Your task to perform on an android device: manage bookmarks in the chrome app Image 0: 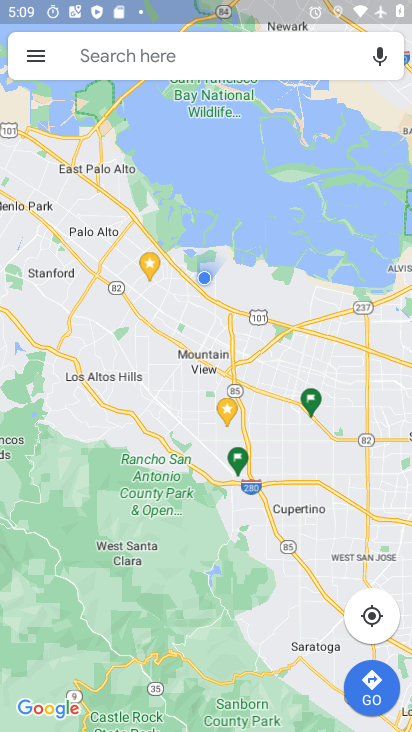
Step 0: press back button
Your task to perform on an android device: manage bookmarks in the chrome app Image 1: 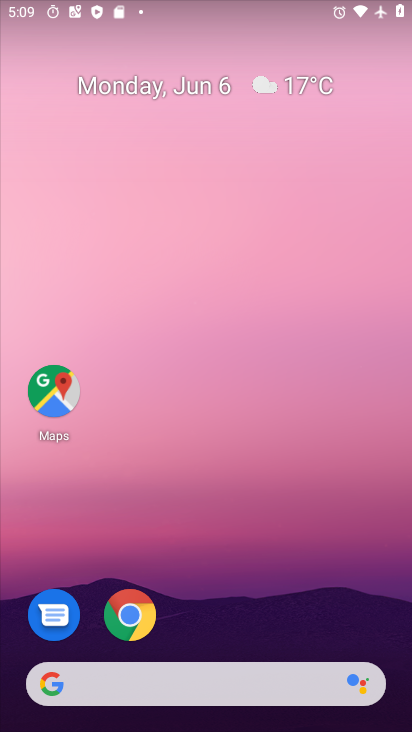
Step 1: drag from (213, 570) to (216, 7)
Your task to perform on an android device: manage bookmarks in the chrome app Image 2: 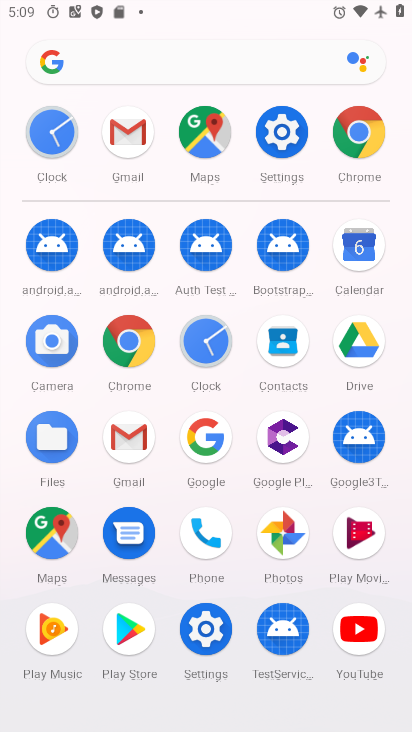
Step 2: click (123, 337)
Your task to perform on an android device: manage bookmarks in the chrome app Image 3: 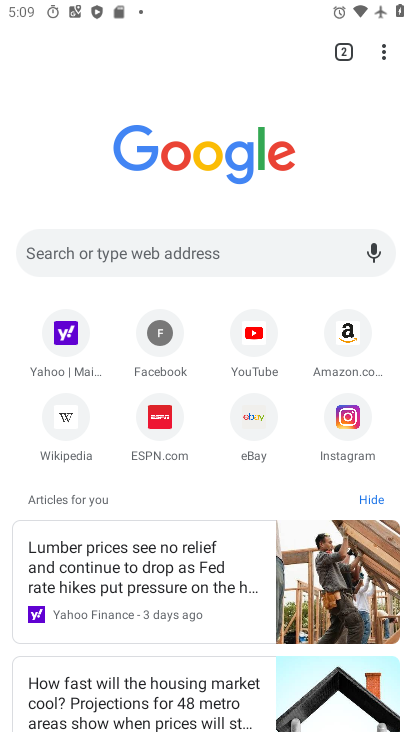
Step 3: task complete